Your task to perform on an android device: Open settings on Google Maps Image 0: 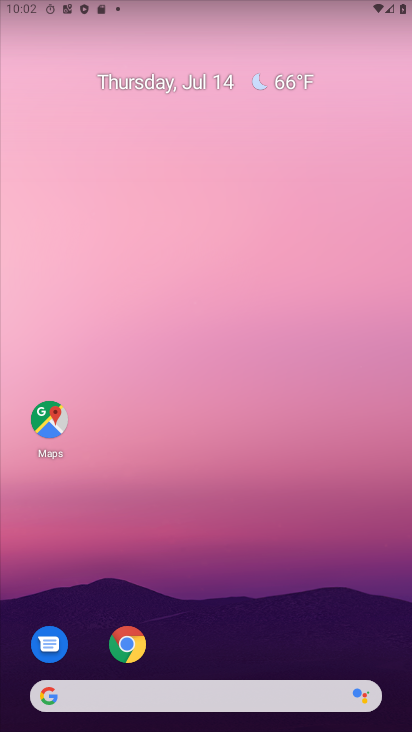
Step 0: drag from (226, 373) to (124, 92)
Your task to perform on an android device: Open settings on Google Maps Image 1: 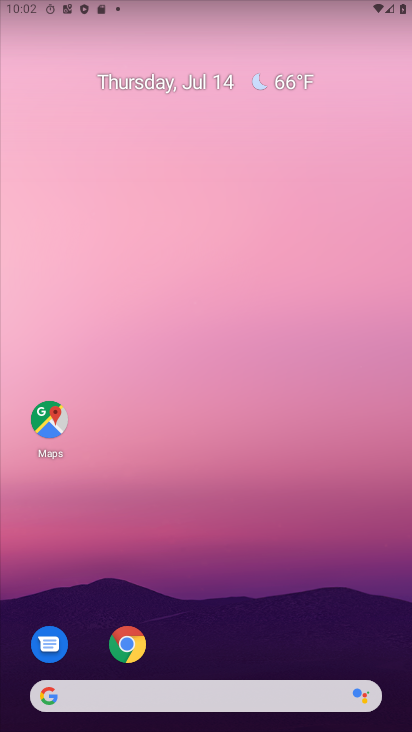
Step 1: drag from (196, 152) to (188, 101)
Your task to perform on an android device: Open settings on Google Maps Image 2: 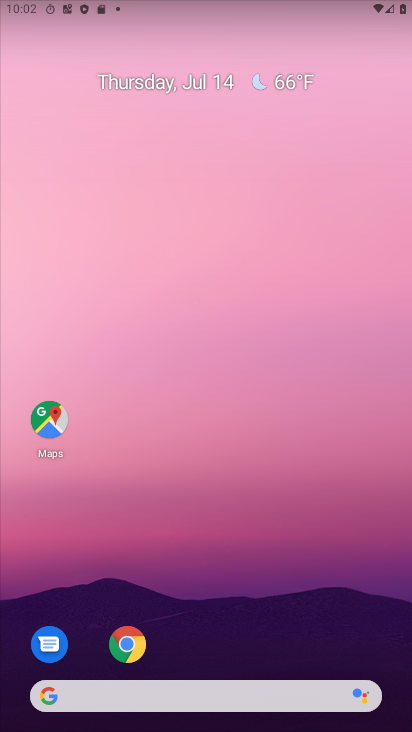
Step 2: drag from (281, 669) to (217, 53)
Your task to perform on an android device: Open settings on Google Maps Image 3: 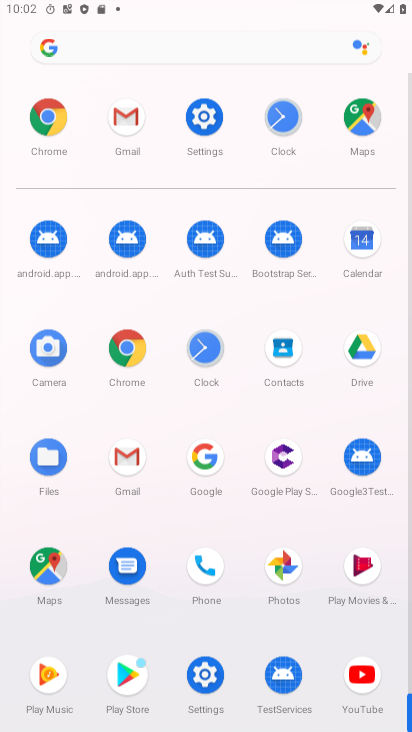
Step 3: drag from (199, 626) to (191, 163)
Your task to perform on an android device: Open settings on Google Maps Image 4: 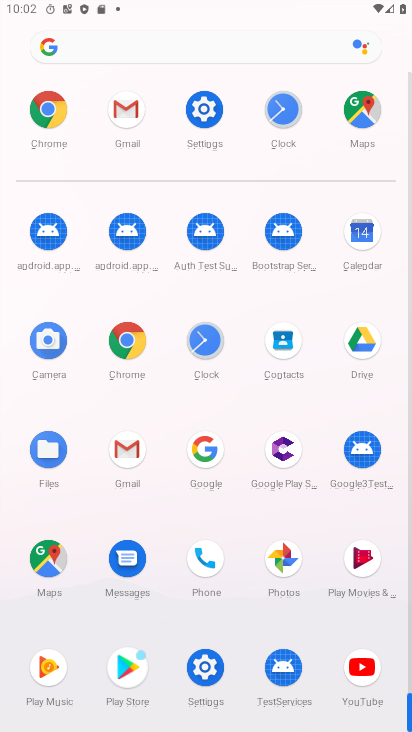
Step 4: click (42, 561)
Your task to perform on an android device: Open settings on Google Maps Image 5: 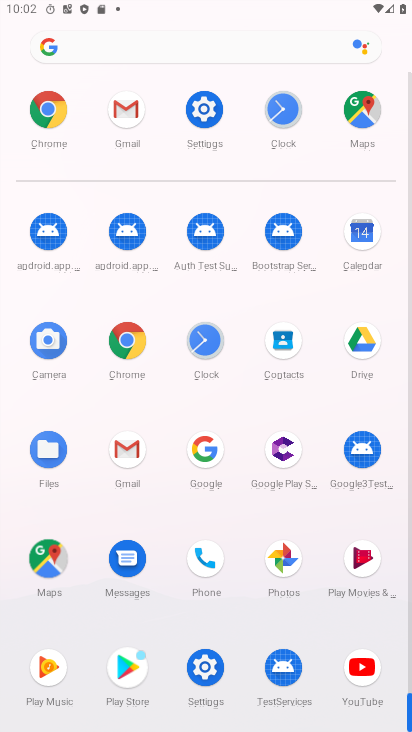
Step 5: click (45, 558)
Your task to perform on an android device: Open settings on Google Maps Image 6: 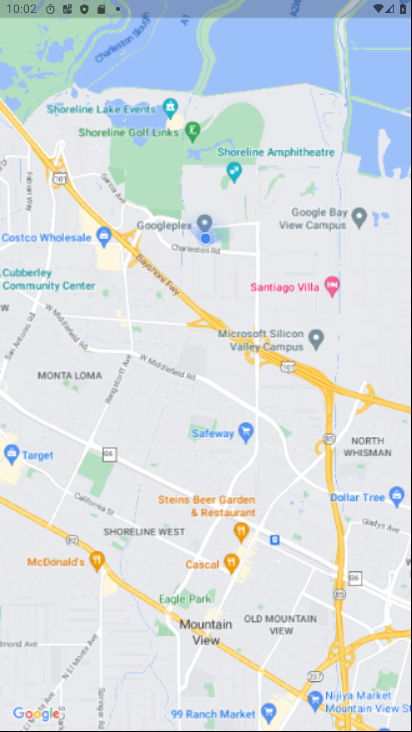
Step 6: click (47, 556)
Your task to perform on an android device: Open settings on Google Maps Image 7: 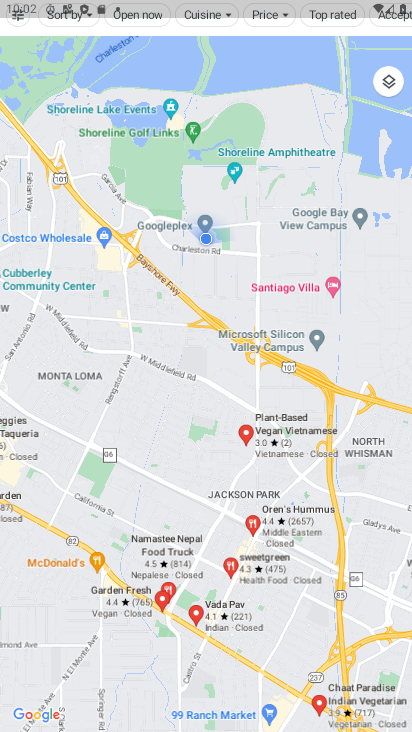
Step 7: click (49, 554)
Your task to perform on an android device: Open settings on Google Maps Image 8: 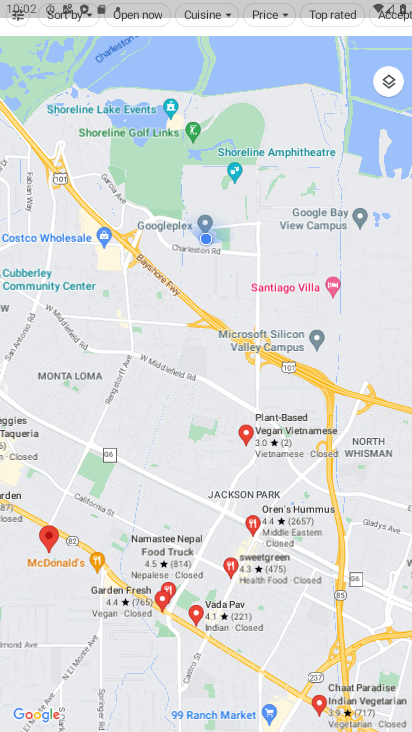
Step 8: click (174, 213)
Your task to perform on an android device: Open settings on Google Maps Image 9: 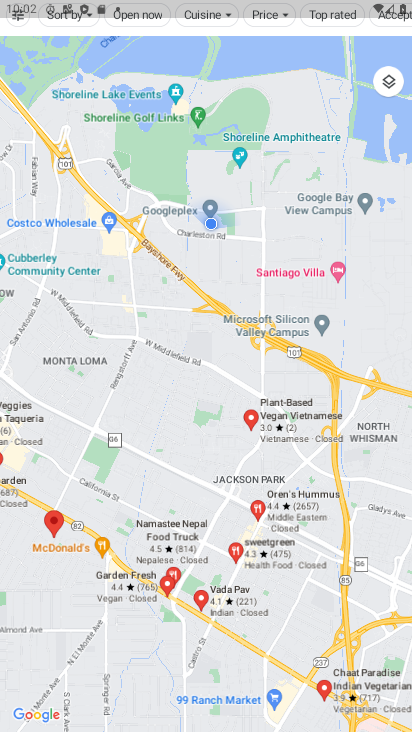
Step 9: drag from (40, 89) to (95, 378)
Your task to perform on an android device: Open settings on Google Maps Image 10: 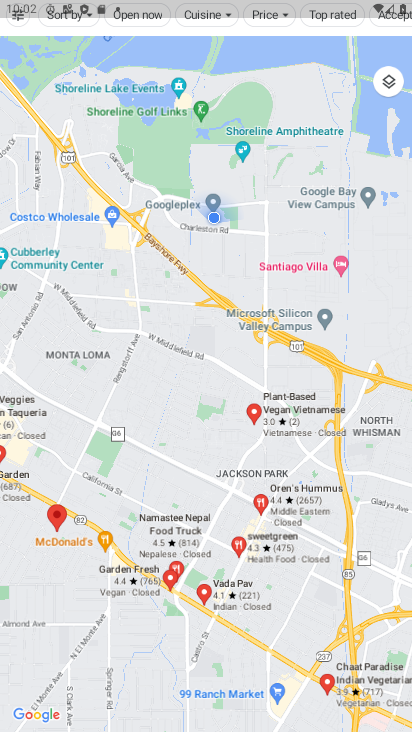
Step 10: drag from (174, 179) to (203, 24)
Your task to perform on an android device: Open settings on Google Maps Image 11: 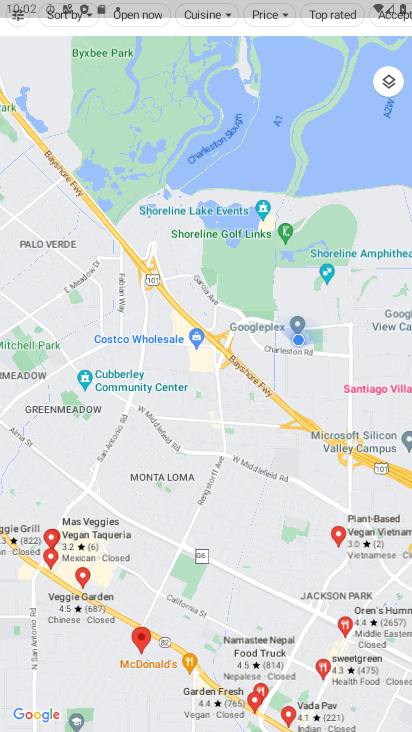
Step 11: drag from (15, 13) to (150, 343)
Your task to perform on an android device: Open settings on Google Maps Image 12: 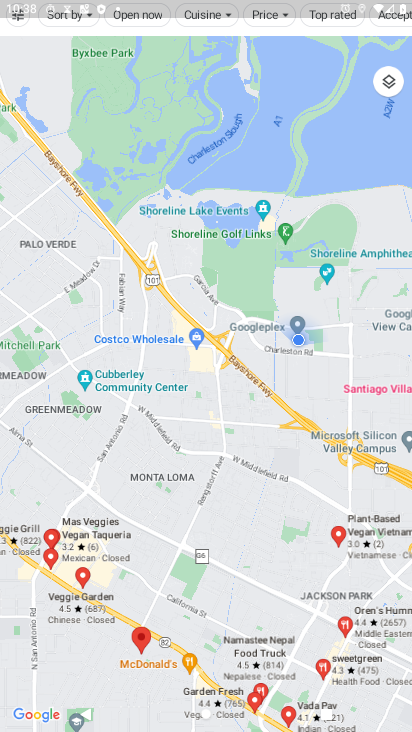
Step 12: click (131, 555)
Your task to perform on an android device: Open settings on Google Maps Image 13: 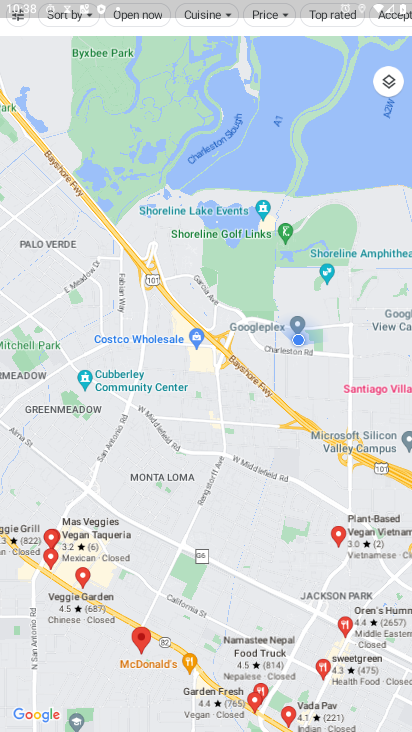
Step 13: drag from (65, 221) to (102, 179)
Your task to perform on an android device: Open settings on Google Maps Image 14: 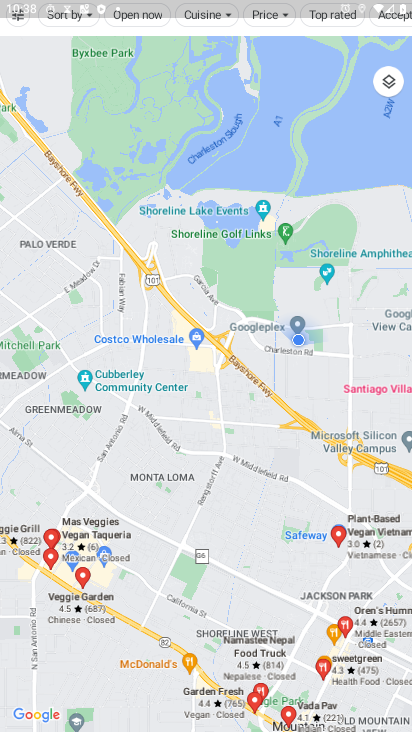
Step 14: drag from (116, 203) to (151, 228)
Your task to perform on an android device: Open settings on Google Maps Image 15: 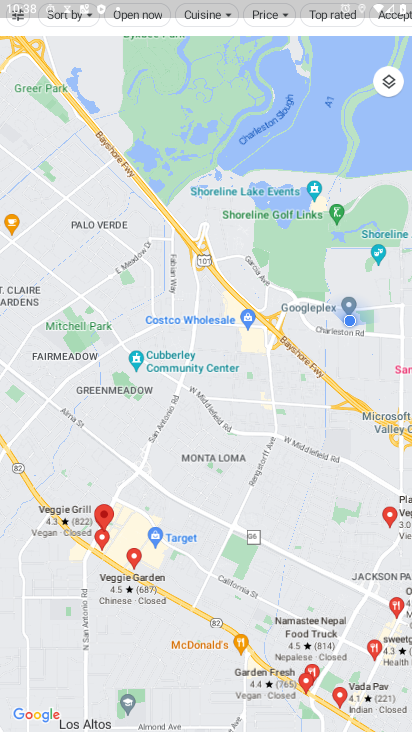
Step 15: click (171, 224)
Your task to perform on an android device: Open settings on Google Maps Image 16: 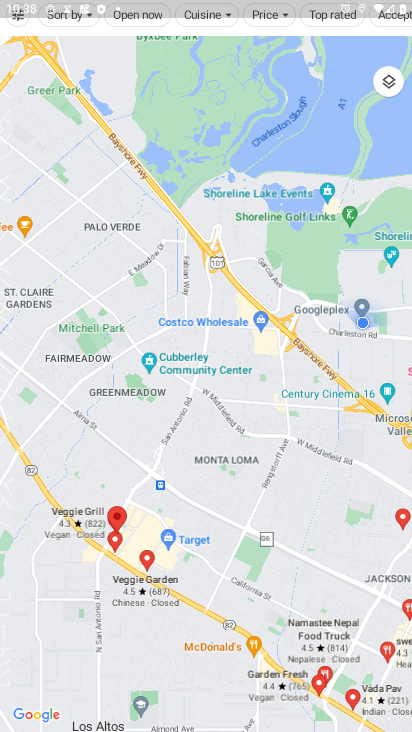
Step 16: click (359, 38)
Your task to perform on an android device: Open settings on Google Maps Image 17: 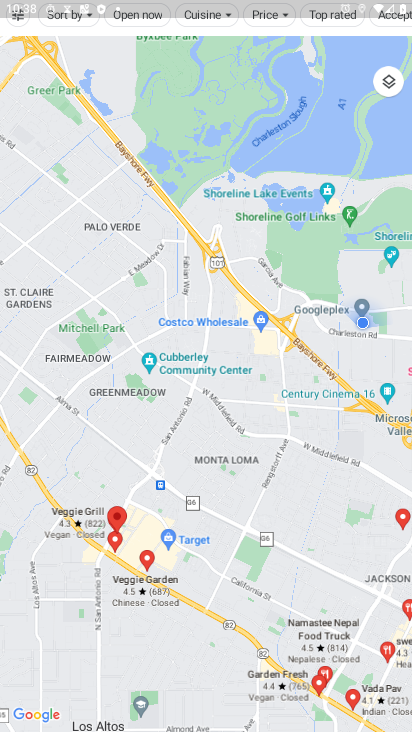
Step 17: click (359, 53)
Your task to perform on an android device: Open settings on Google Maps Image 18: 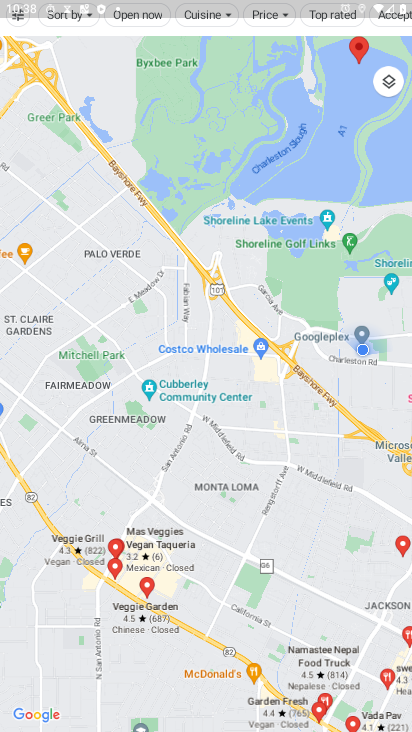
Step 18: task complete